Your task to perform on an android device: toggle translation in the chrome app Image 0: 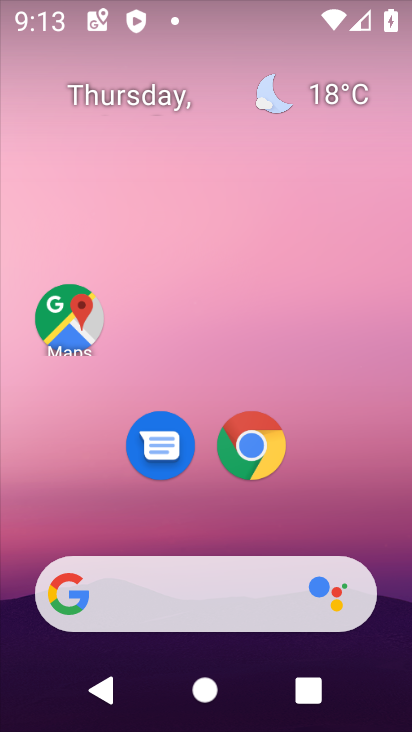
Step 0: click (254, 478)
Your task to perform on an android device: toggle translation in the chrome app Image 1: 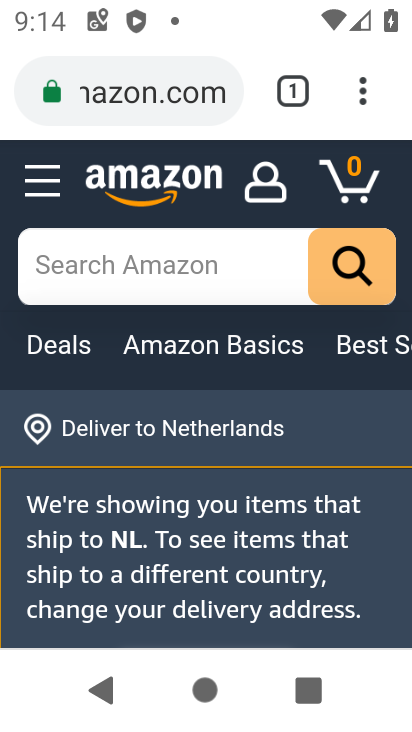
Step 1: click (355, 91)
Your task to perform on an android device: toggle translation in the chrome app Image 2: 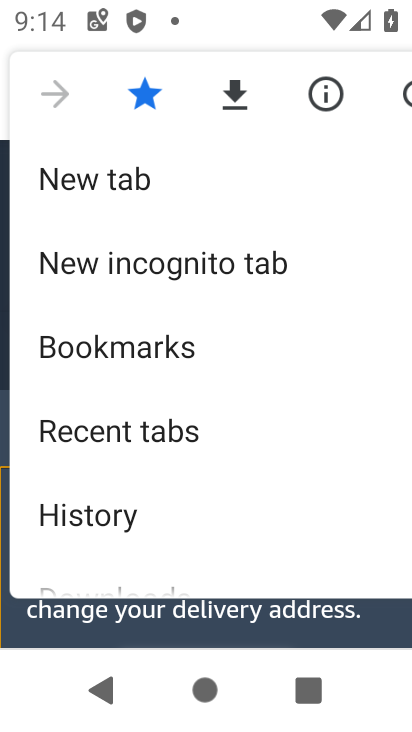
Step 2: drag from (229, 586) to (185, 131)
Your task to perform on an android device: toggle translation in the chrome app Image 3: 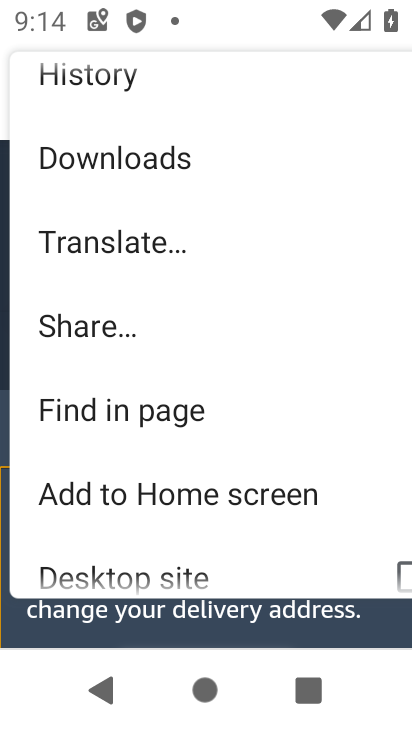
Step 3: drag from (216, 546) to (131, 148)
Your task to perform on an android device: toggle translation in the chrome app Image 4: 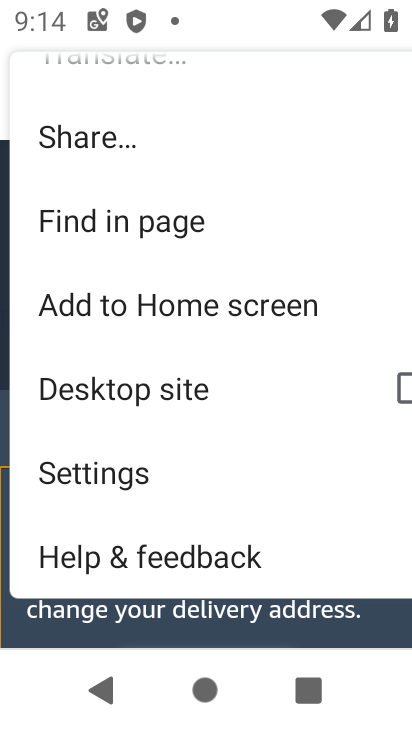
Step 4: click (165, 458)
Your task to perform on an android device: toggle translation in the chrome app Image 5: 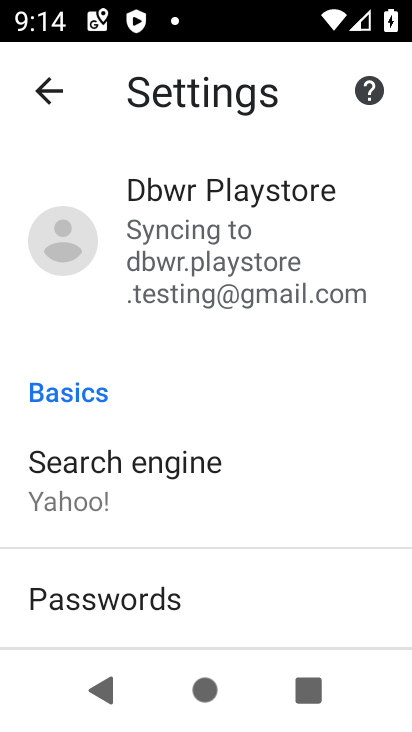
Step 5: drag from (219, 578) to (177, 267)
Your task to perform on an android device: toggle translation in the chrome app Image 6: 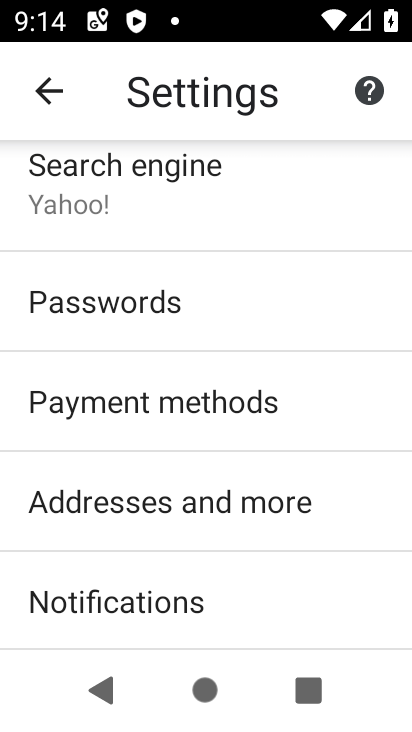
Step 6: drag from (223, 619) to (141, 180)
Your task to perform on an android device: toggle translation in the chrome app Image 7: 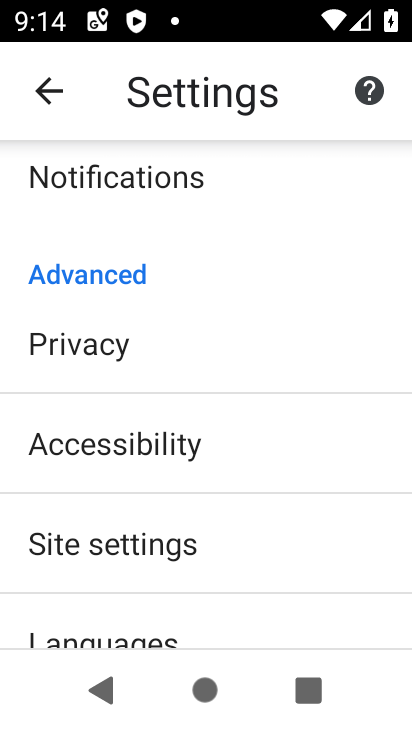
Step 7: drag from (185, 557) to (153, 329)
Your task to perform on an android device: toggle translation in the chrome app Image 8: 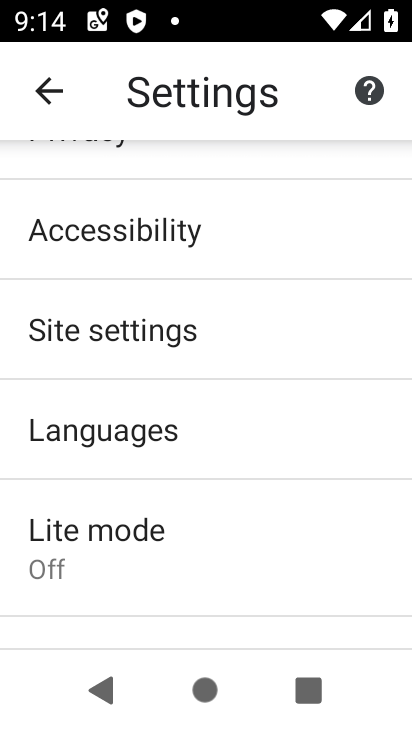
Step 8: click (182, 454)
Your task to perform on an android device: toggle translation in the chrome app Image 9: 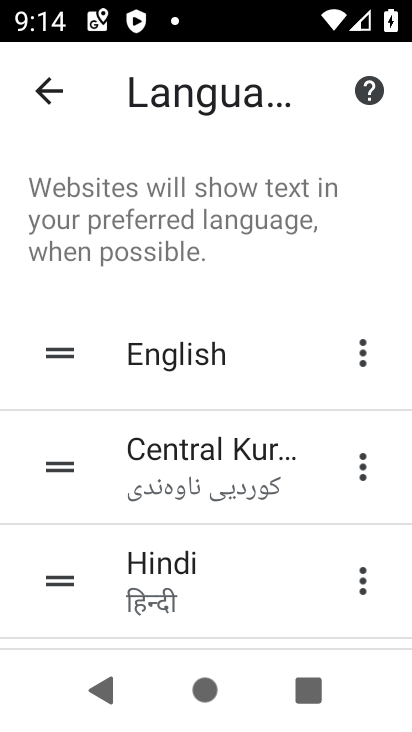
Step 9: drag from (249, 580) to (210, 281)
Your task to perform on an android device: toggle translation in the chrome app Image 10: 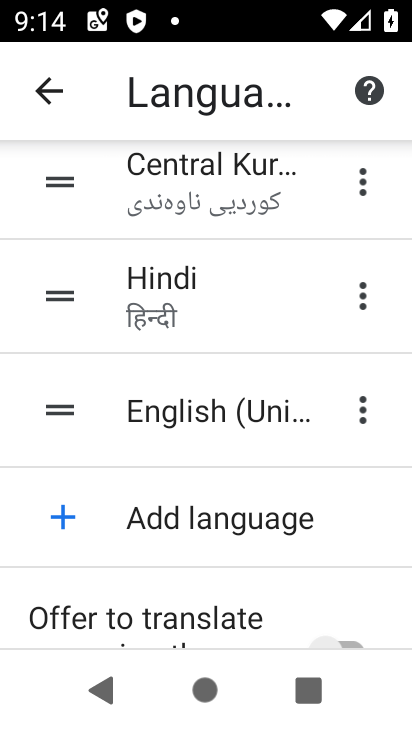
Step 10: drag from (278, 618) to (252, 408)
Your task to perform on an android device: toggle translation in the chrome app Image 11: 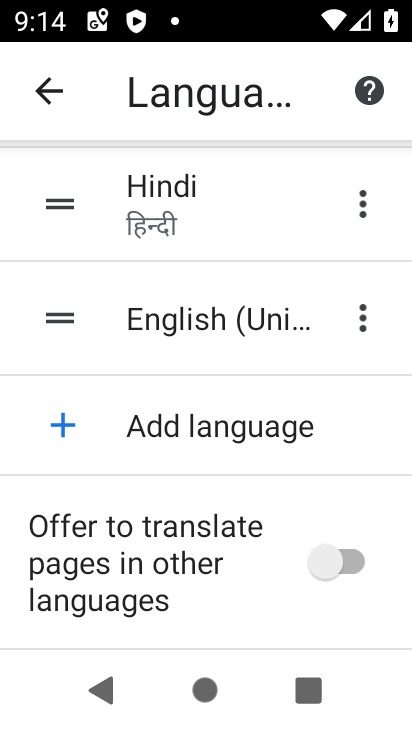
Step 11: click (359, 551)
Your task to perform on an android device: toggle translation in the chrome app Image 12: 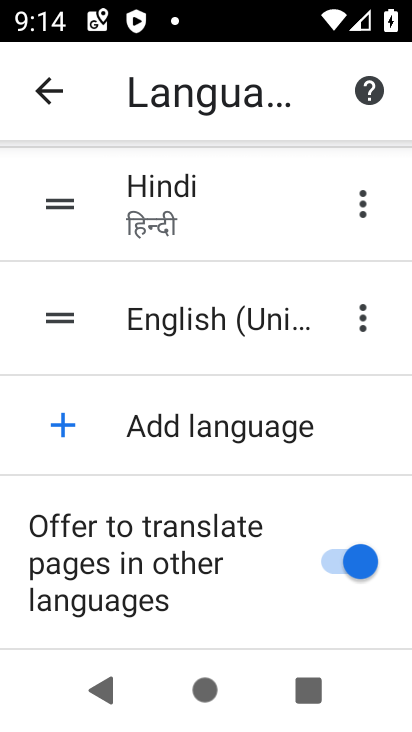
Step 12: task complete